Your task to perform on an android device: open app "Fetch Rewards" Image 0: 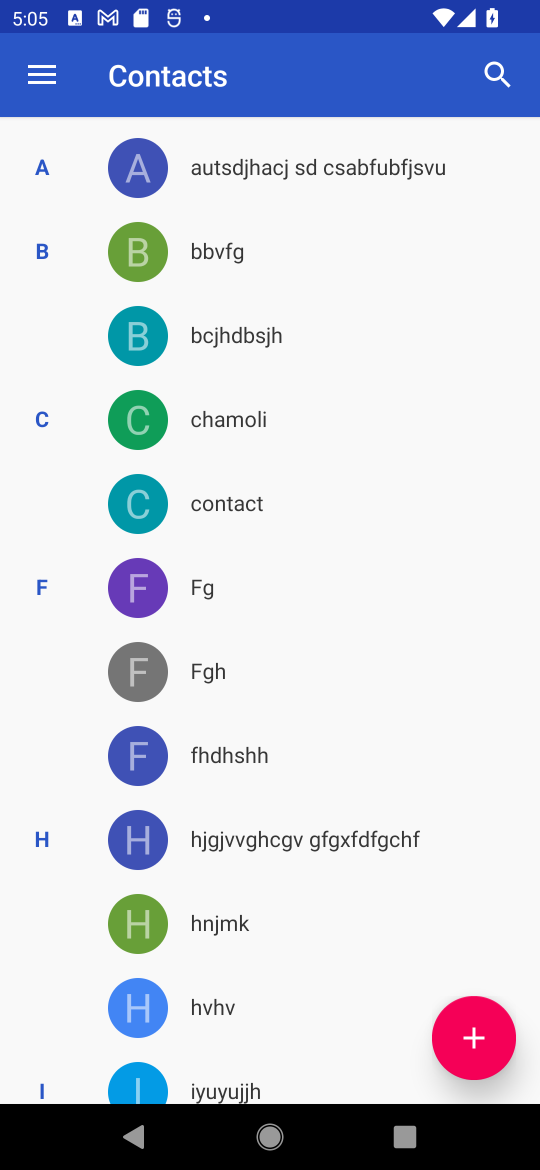
Step 0: press home button
Your task to perform on an android device: open app "Fetch Rewards" Image 1: 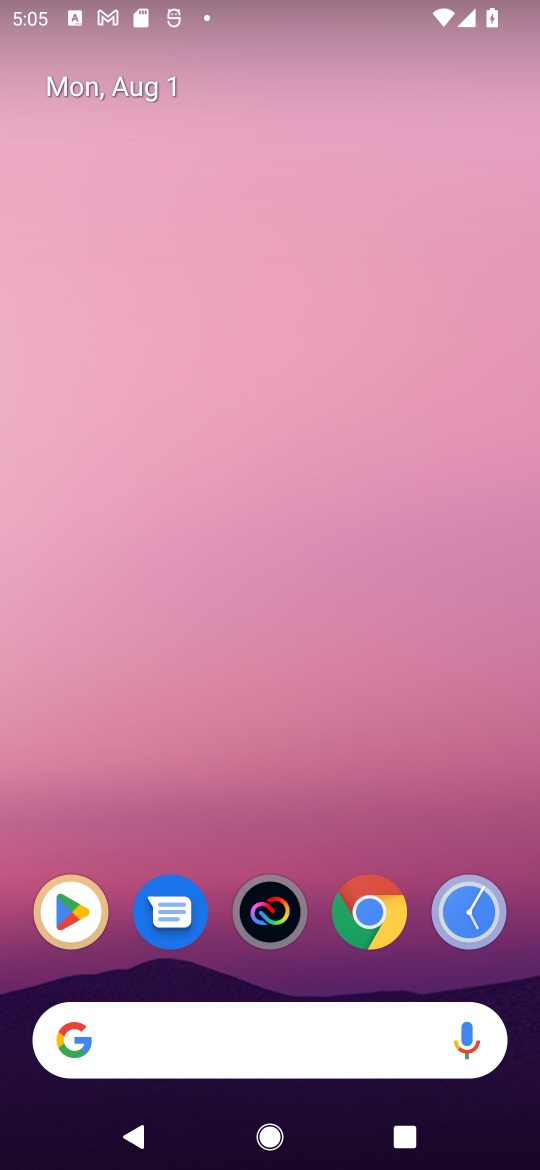
Step 1: click (61, 936)
Your task to perform on an android device: open app "Fetch Rewards" Image 2: 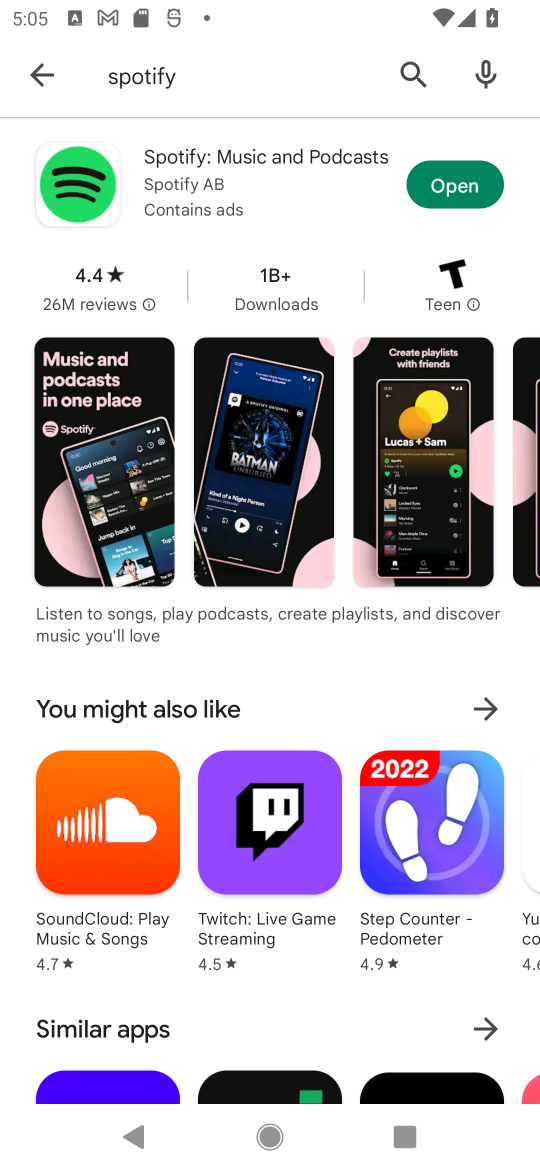
Step 2: click (400, 76)
Your task to perform on an android device: open app "Fetch Rewards" Image 3: 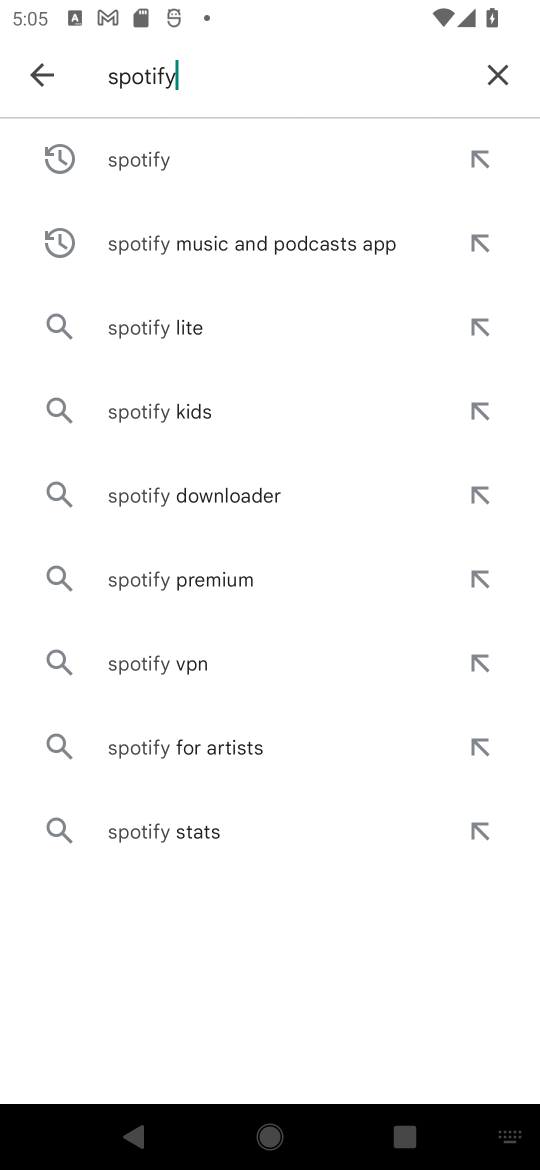
Step 3: click (500, 88)
Your task to perform on an android device: open app "Fetch Rewards" Image 4: 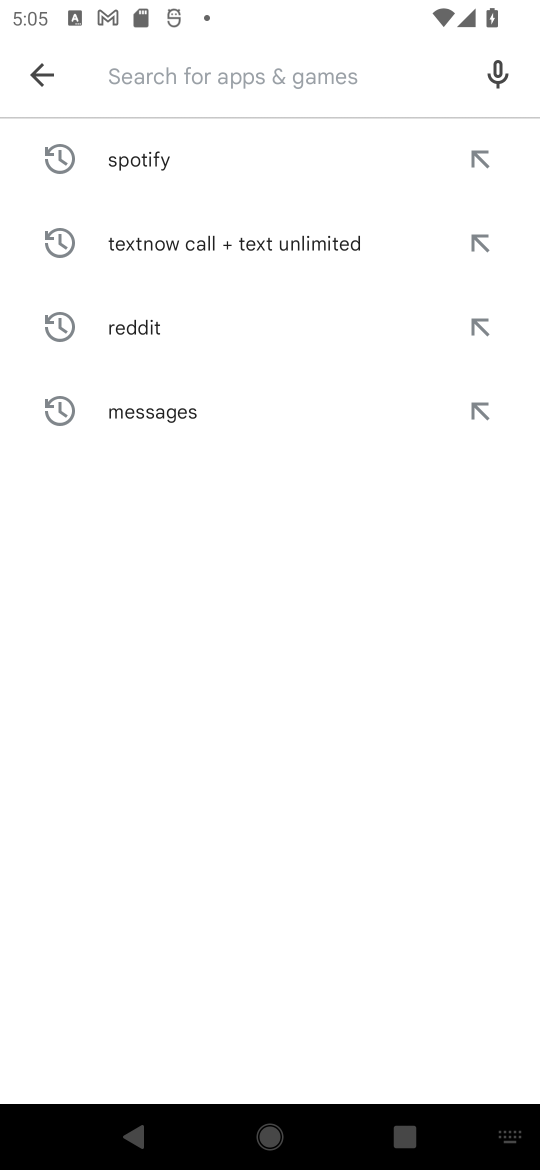
Step 4: type "Fetch Rewards"
Your task to perform on an android device: open app "Fetch Rewards" Image 5: 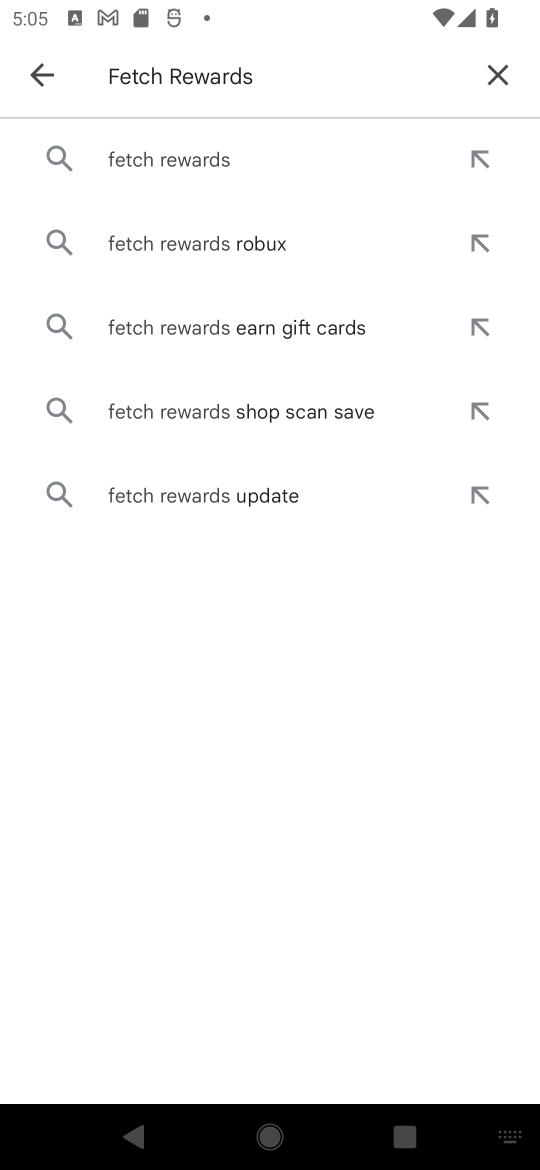
Step 5: click (108, 150)
Your task to perform on an android device: open app "Fetch Rewards" Image 6: 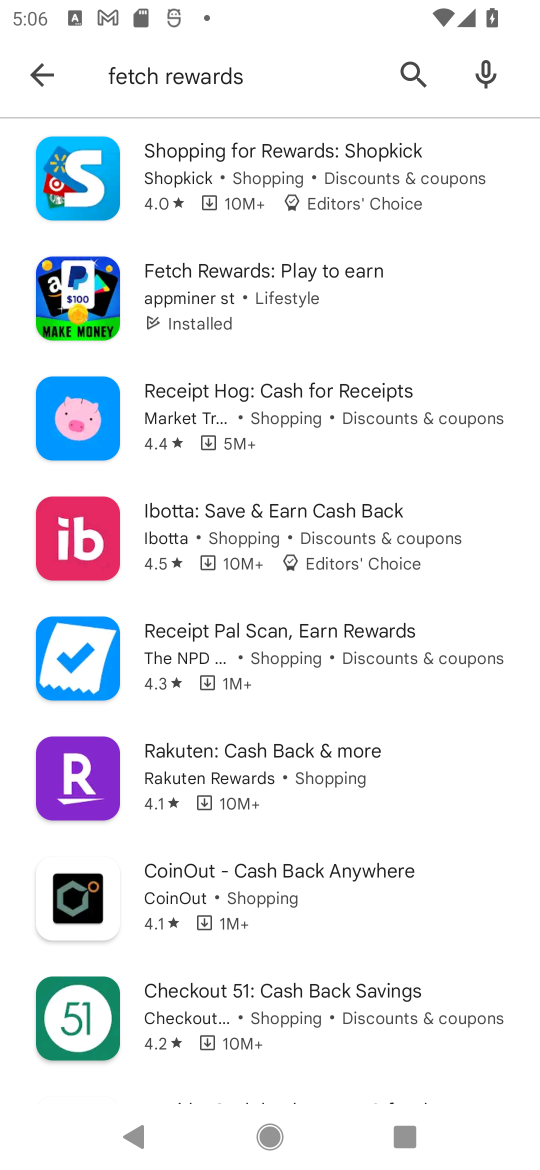
Step 6: click (44, 305)
Your task to perform on an android device: open app "Fetch Rewards" Image 7: 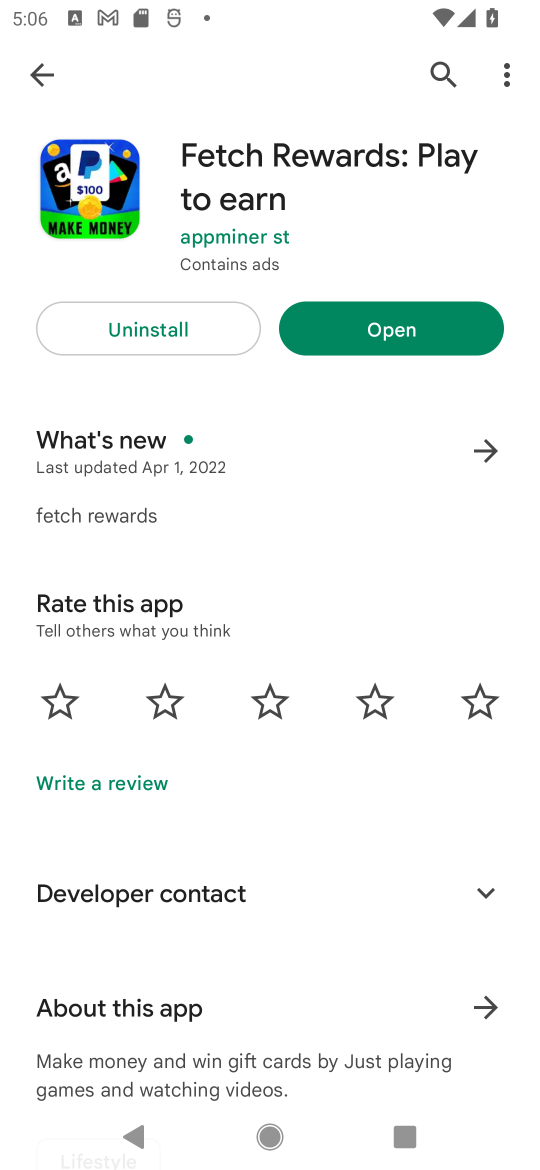
Step 7: click (397, 330)
Your task to perform on an android device: open app "Fetch Rewards" Image 8: 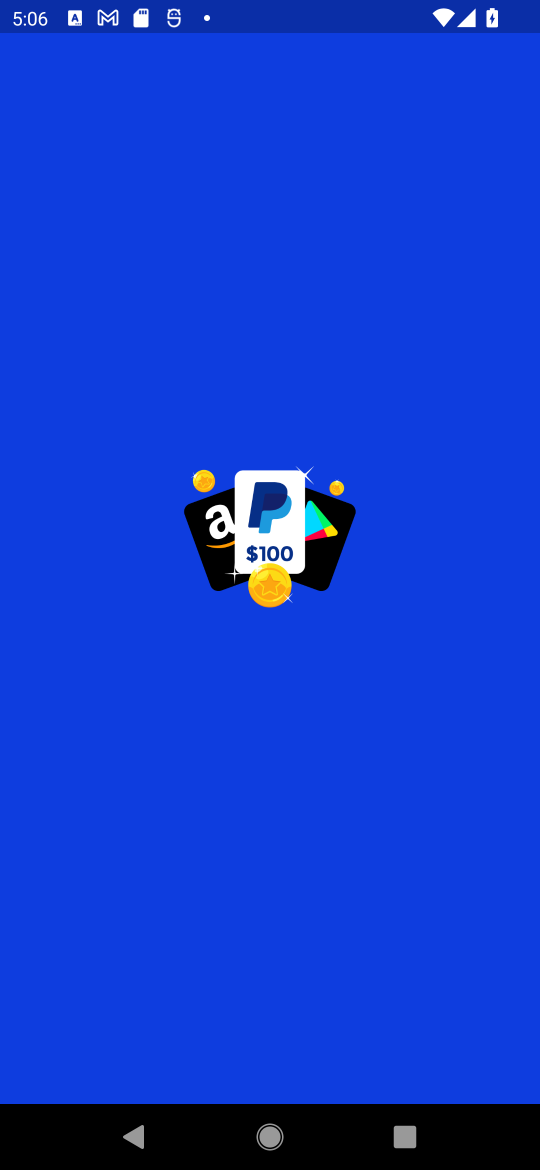
Step 8: task complete